Your task to perform on an android device: Open Google Chrome and click the shortcut for Amazon.com Image 0: 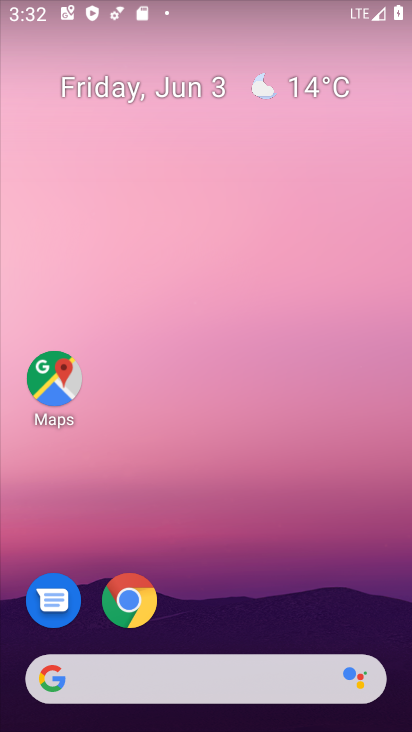
Step 0: click (151, 599)
Your task to perform on an android device: Open Google Chrome and click the shortcut for Amazon.com Image 1: 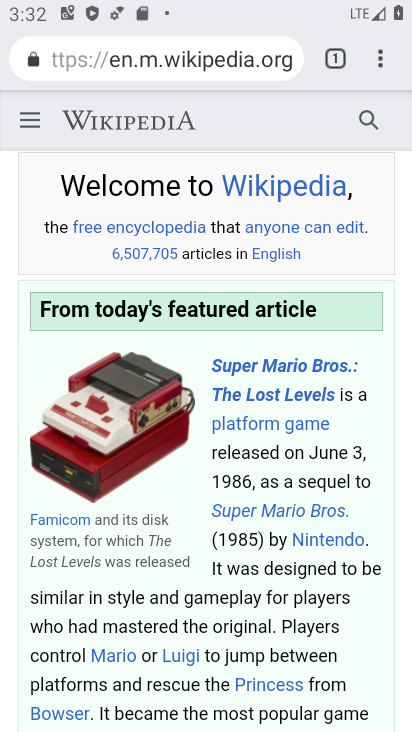
Step 1: click (344, 55)
Your task to perform on an android device: Open Google Chrome and click the shortcut for Amazon.com Image 2: 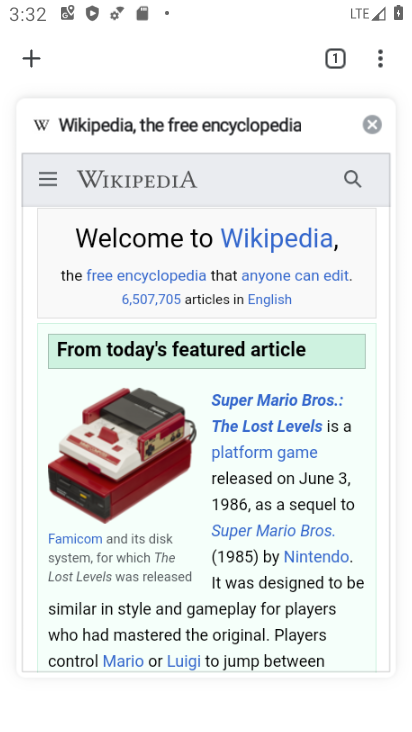
Step 2: click (367, 126)
Your task to perform on an android device: Open Google Chrome and click the shortcut for Amazon.com Image 3: 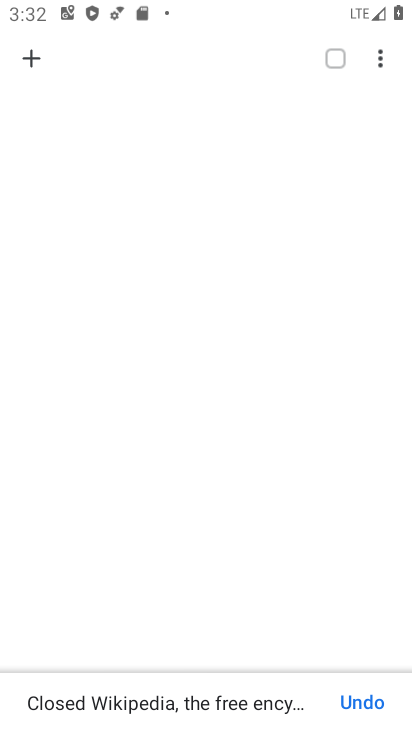
Step 3: click (32, 53)
Your task to perform on an android device: Open Google Chrome and click the shortcut for Amazon.com Image 4: 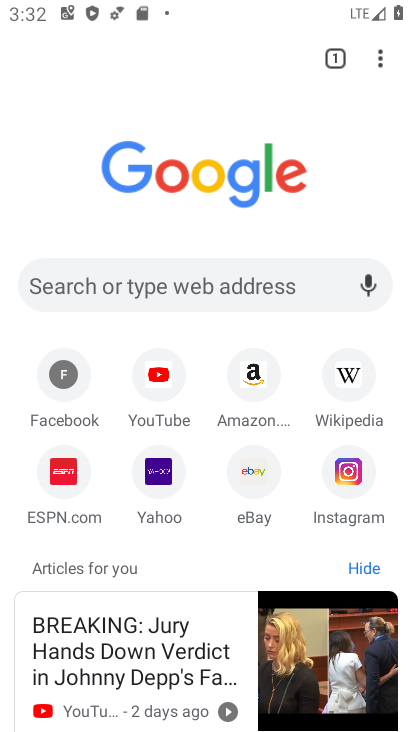
Step 4: click (256, 371)
Your task to perform on an android device: Open Google Chrome and click the shortcut for Amazon.com Image 5: 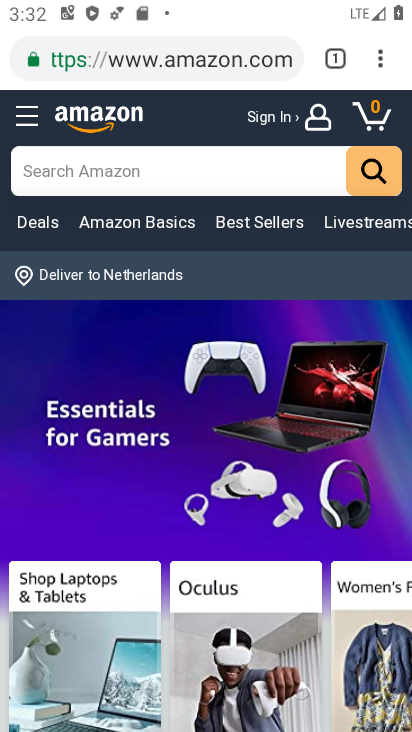
Step 5: task complete